Your task to perform on an android device: Turn off the flashlight Image 0: 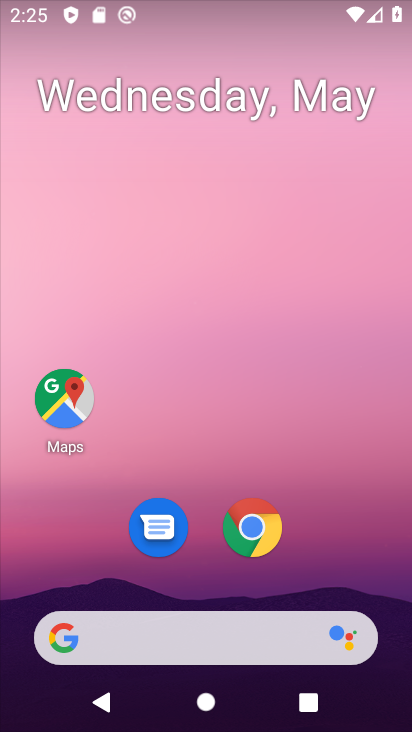
Step 0: drag from (243, 622) to (164, 37)
Your task to perform on an android device: Turn off the flashlight Image 1: 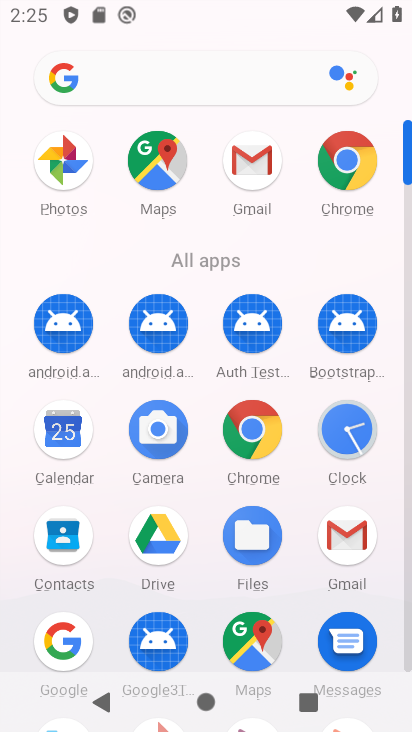
Step 1: task complete